Your task to perform on an android device: Open calendar and show me the first week of next month Image 0: 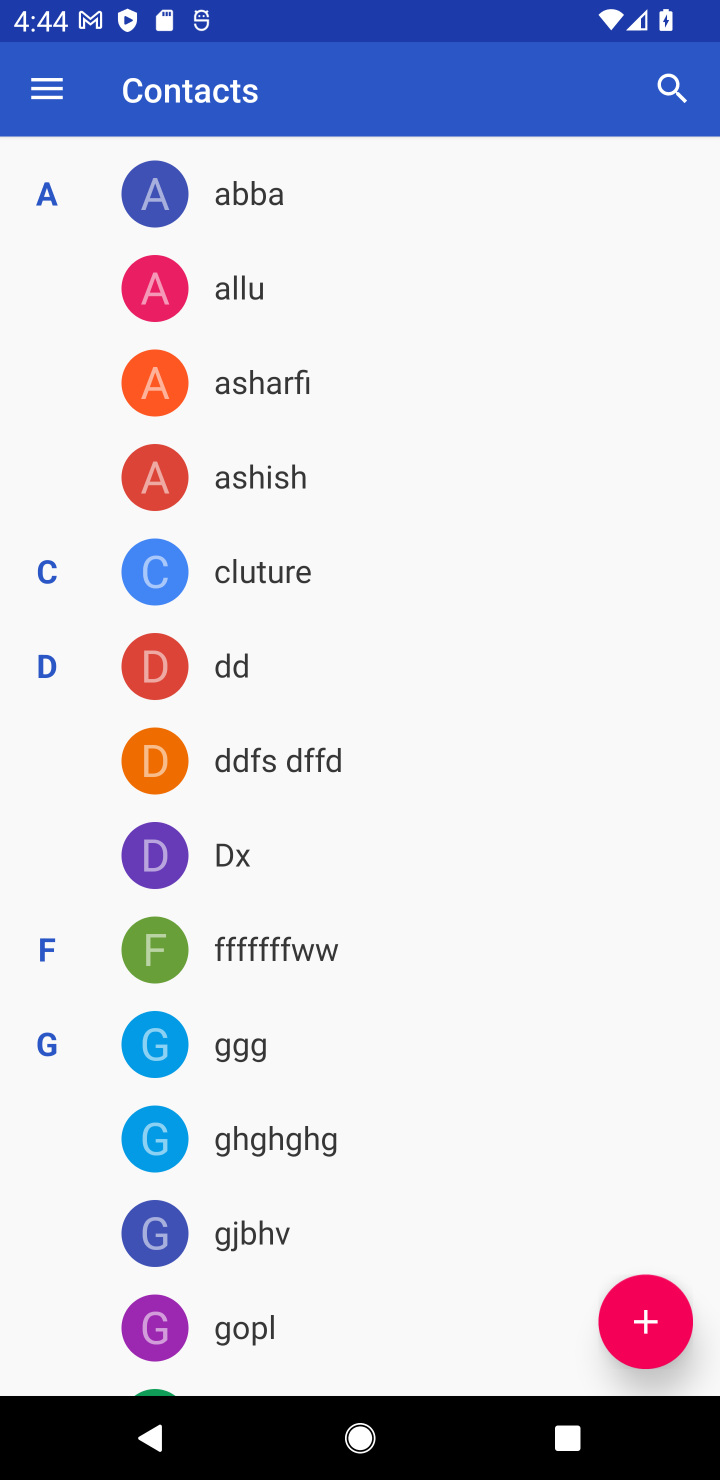
Step 0: press home button
Your task to perform on an android device: Open calendar and show me the first week of next month Image 1: 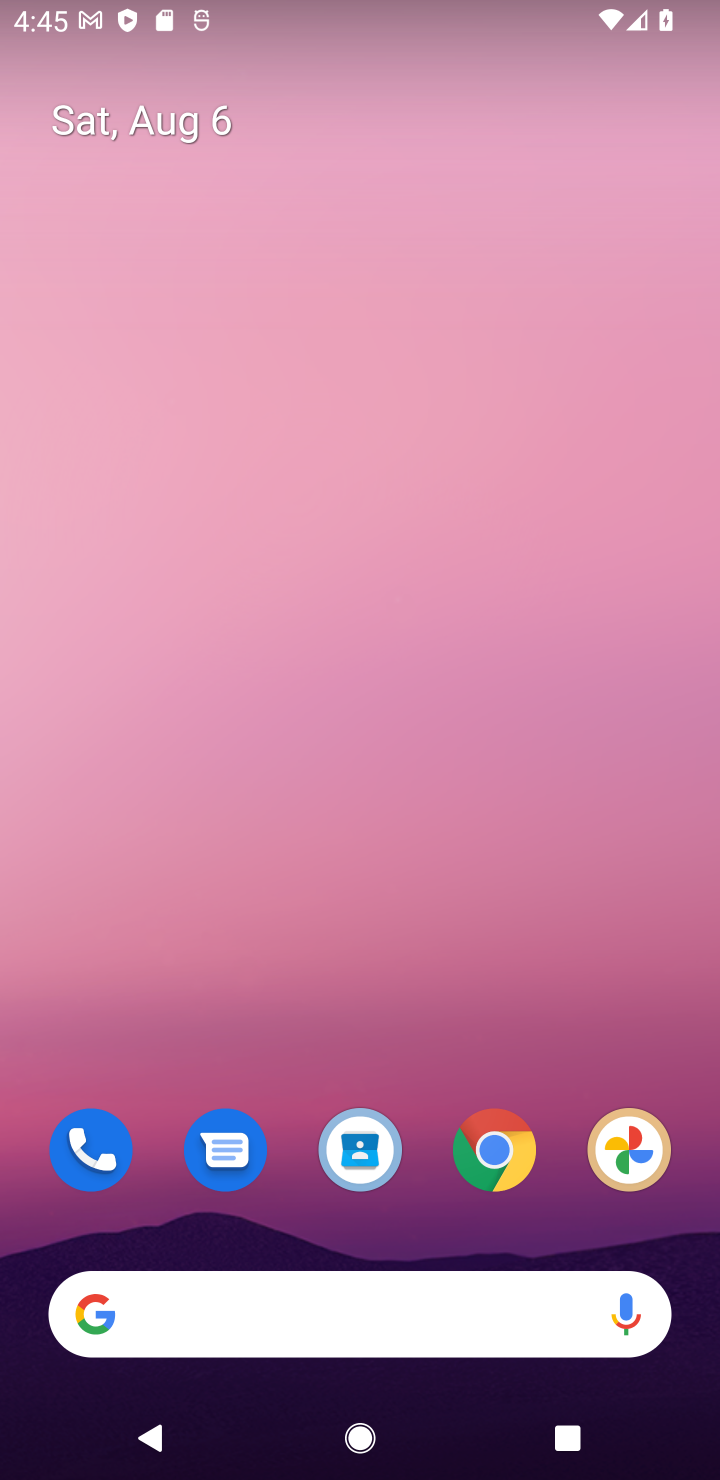
Step 1: drag from (424, 528) to (433, 191)
Your task to perform on an android device: Open calendar and show me the first week of next month Image 2: 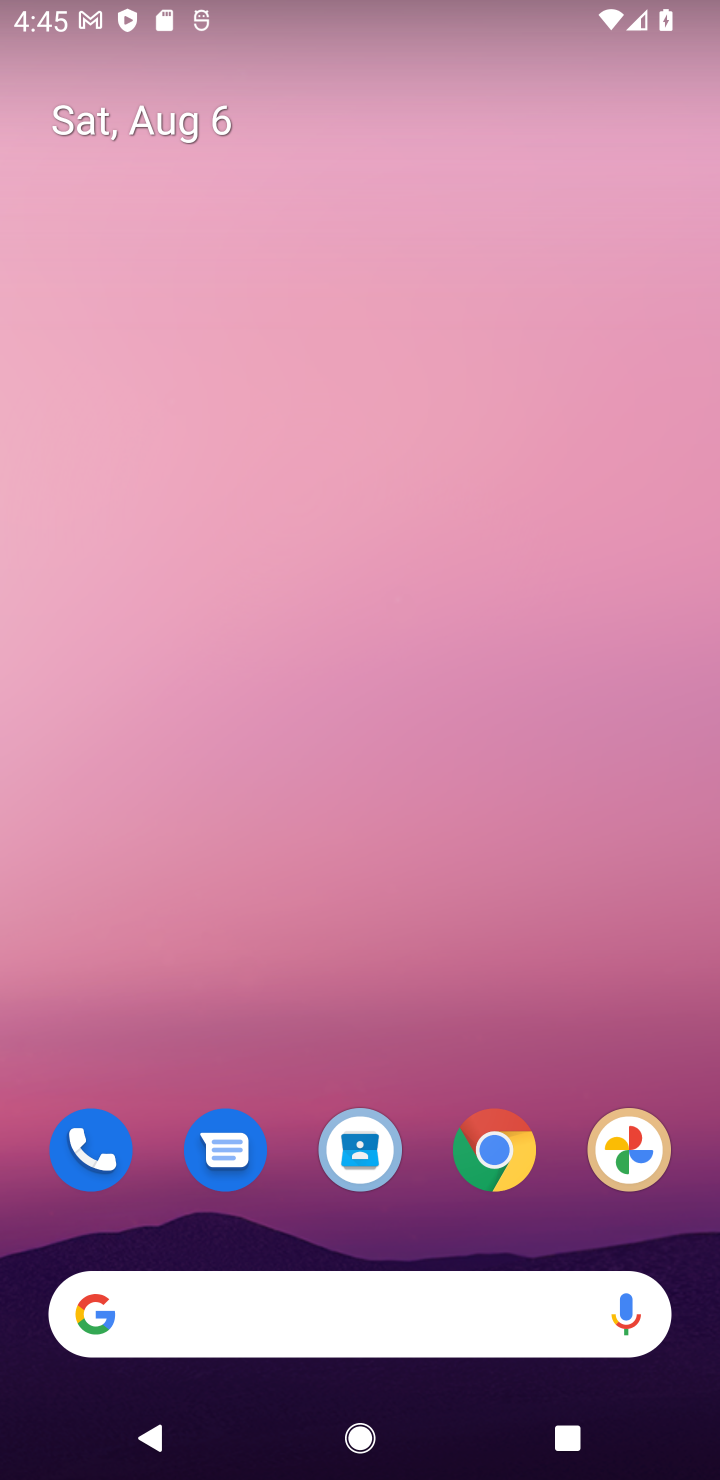
Step 2: drag from (417, 973) to (440, 274)
Your task to perform on an android device: Open calendar and show me the first week of next month Image 3: 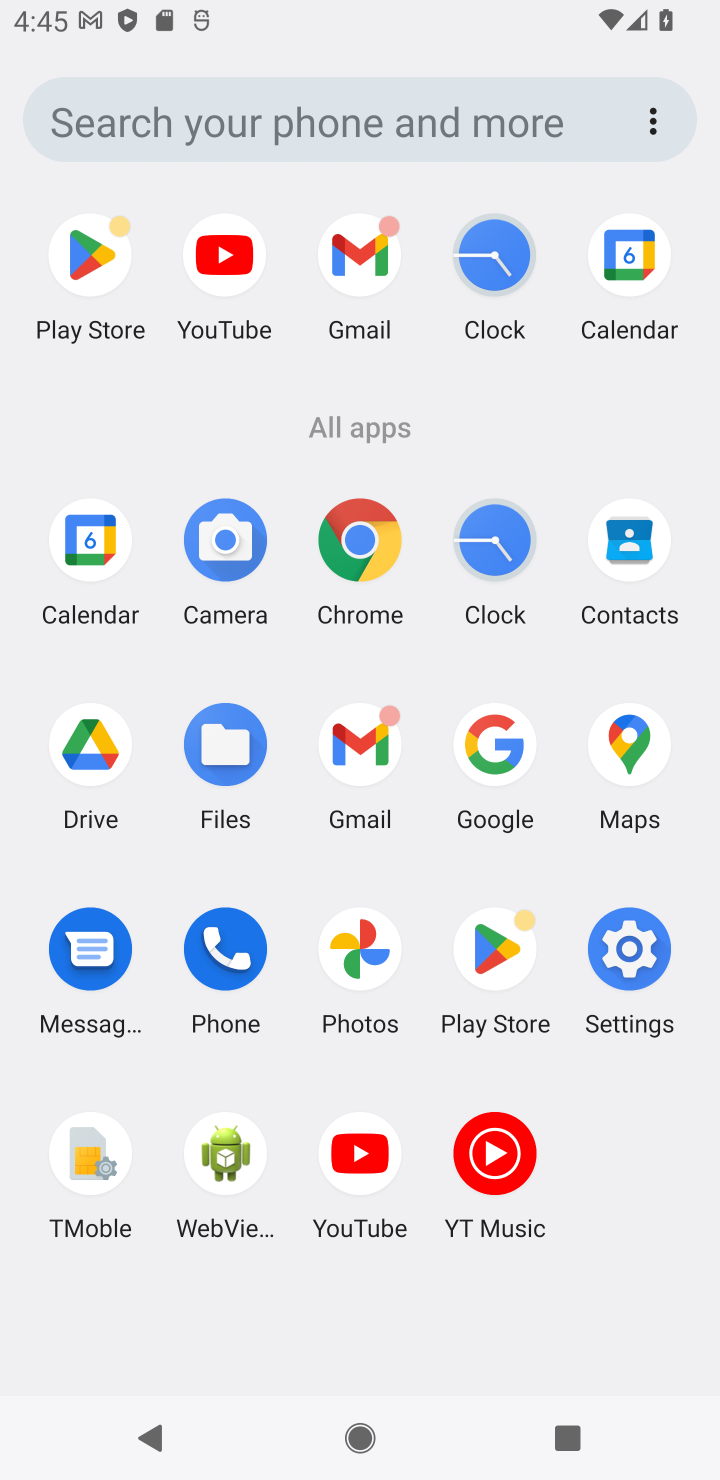
Step 3: click (112, 535)
Your task to perform on an android device: Open calendar and show me the first week of next month Image 4: 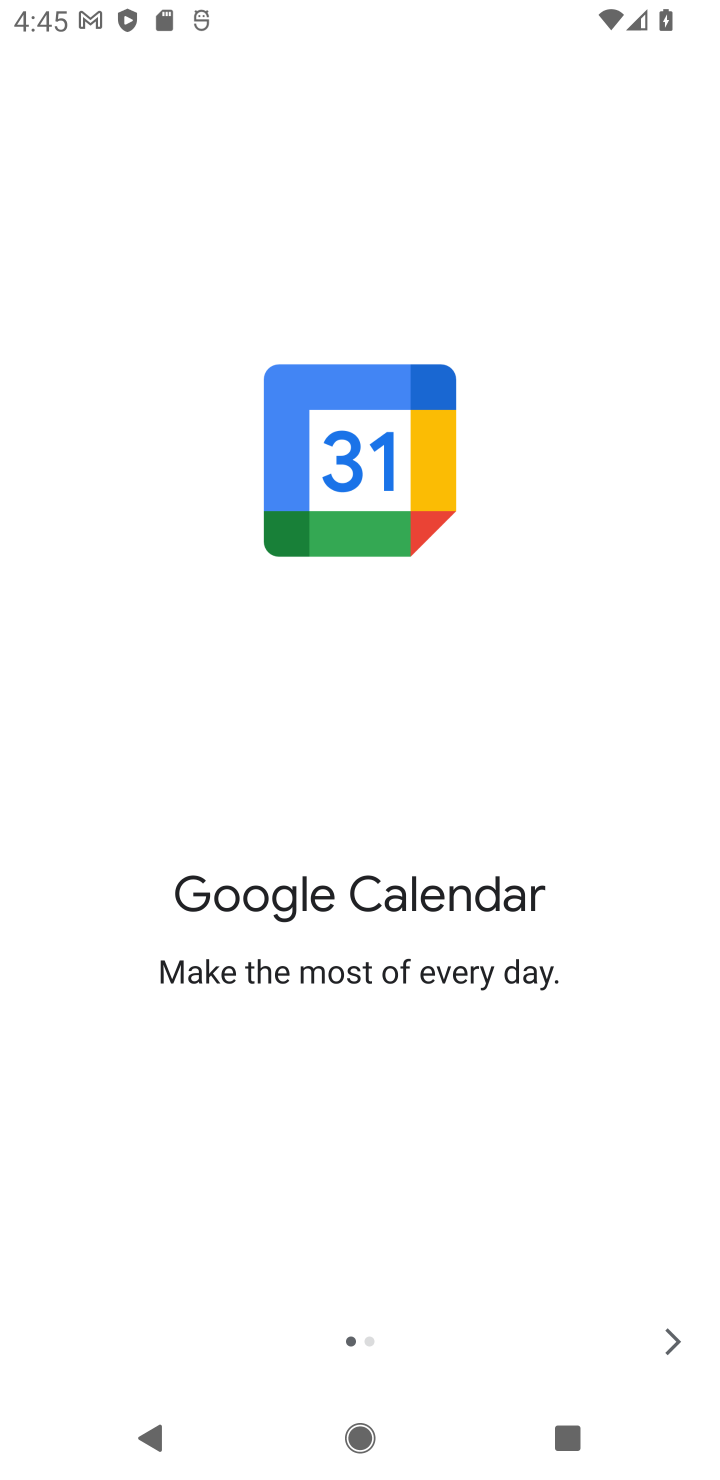
Step 4: click (675, 1338)
Your task to perform on an android device: Open calendar and show me the first week of next month Image 5: 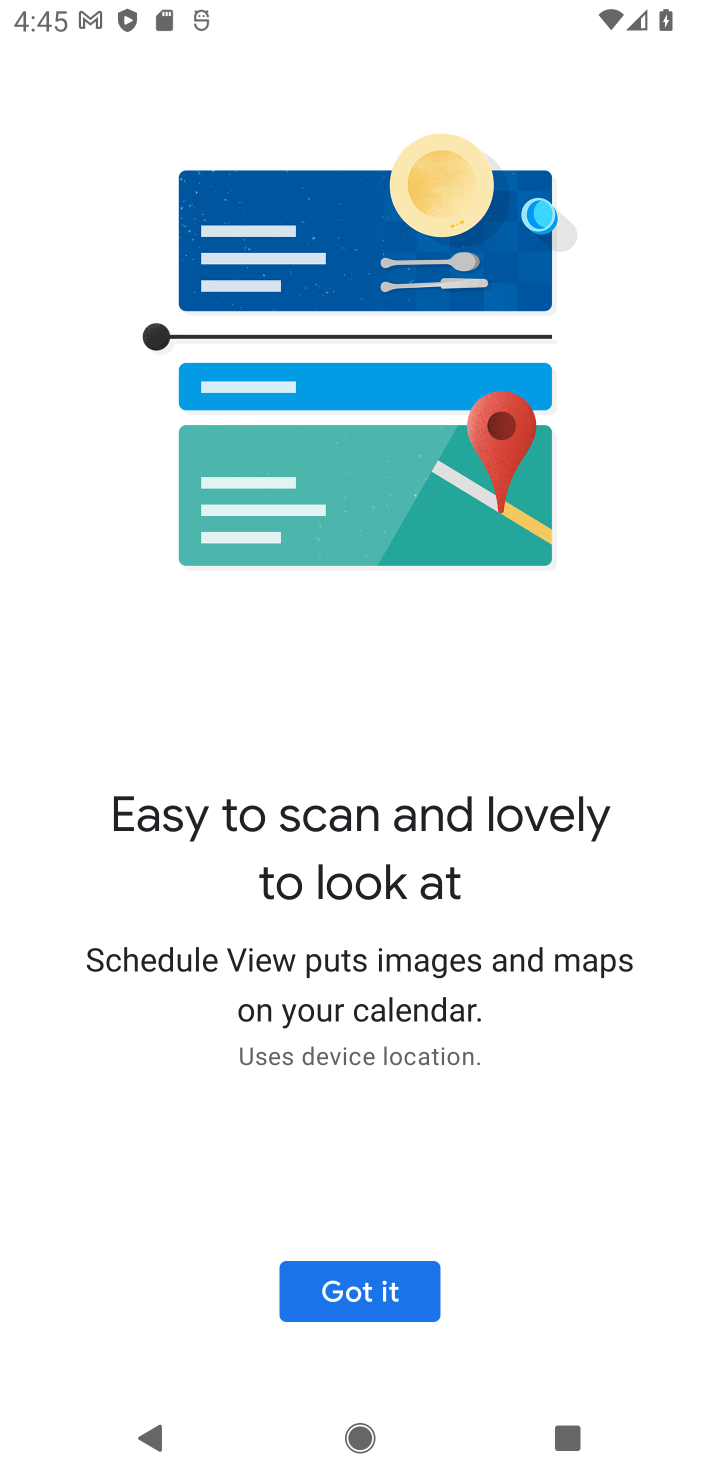
Step 5: click (675, 1338)
Your task to perform on an android device: Open calendar and show me the first week of next month Image 6: 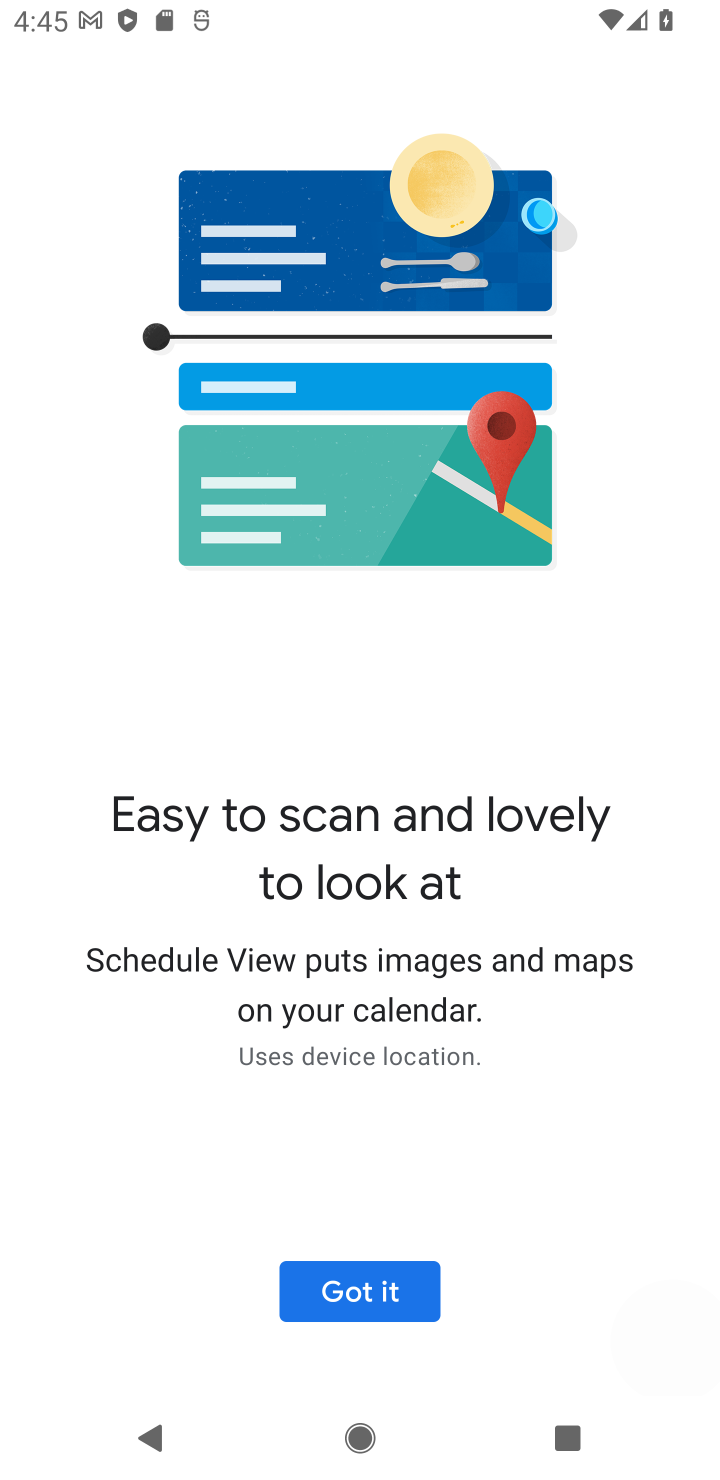
Step 6: click (312, 1283)
Your task to perform on an android device: Open calendar and show me the first week of next month Image 7: 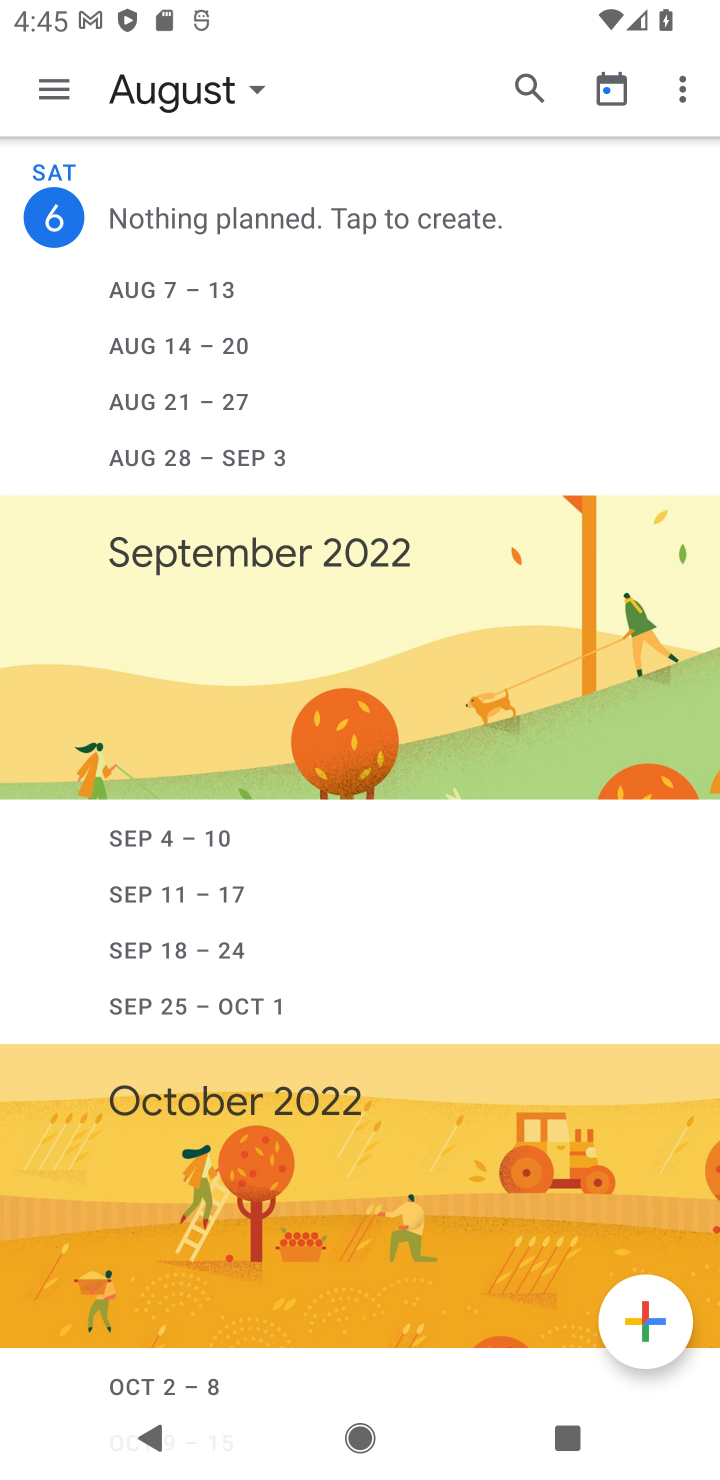
Step 7: click (246, 102)
Your task to perform on an android device: Open calendar and show me the first week of next month Image 8: 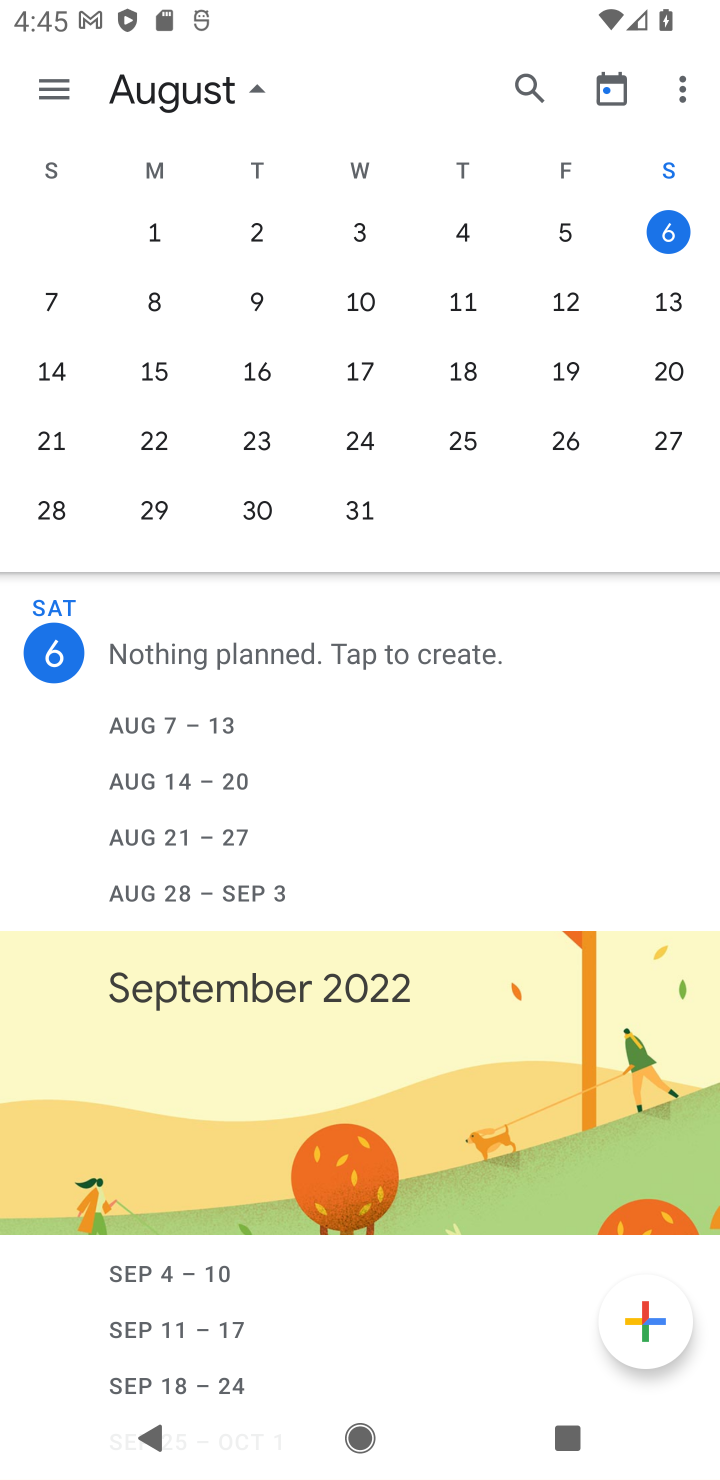
Step 8: task complete